Your task to perform on an android device: stop showing notifications on the lock screen Image 0: 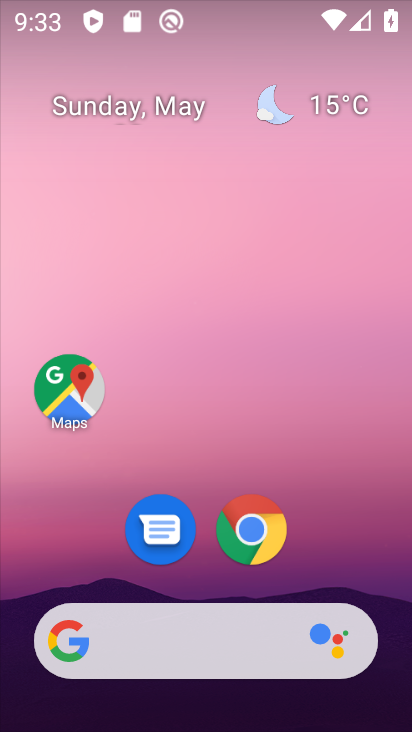
Step 0: drag from (273, 663) to (243, 5)
Your task to perform on an android device: stop showing notifications on the lock screen Image 1: 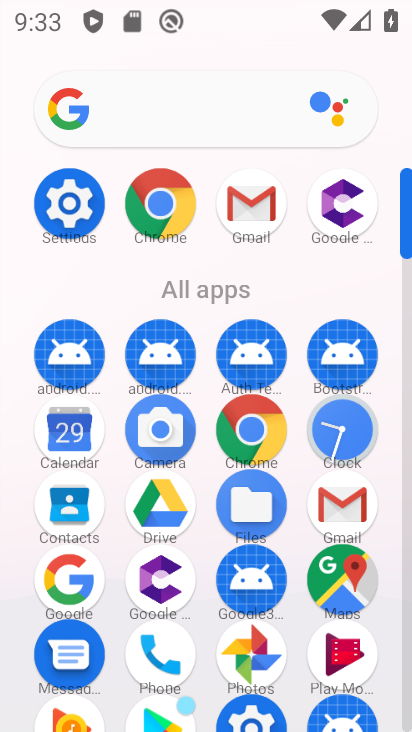
Step 1: click (81, 211)
Your task to perform on an android device: stop showing notifications on the lock screen Image 2: 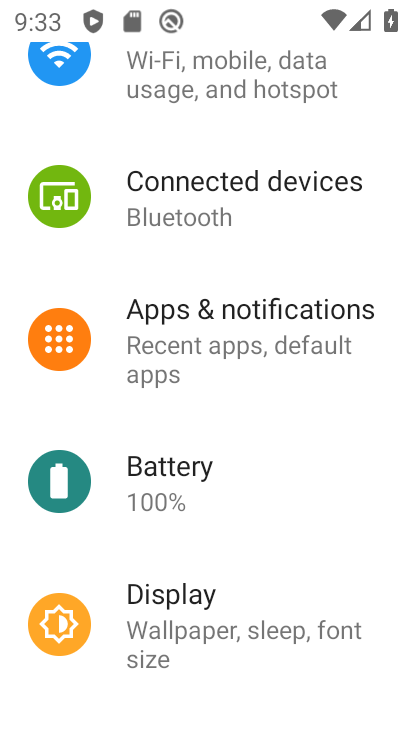
Step 2: click (212, 343)
Your task to perform on an android device: stop showing notifications on the lock screen Image 3: 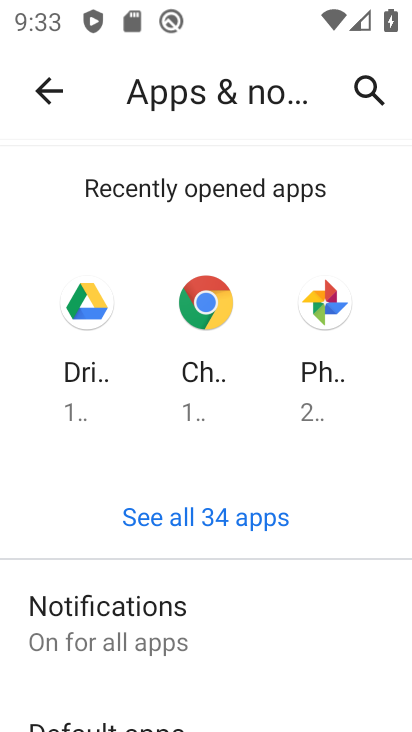
Step 3: drag from (252, 638) to (302, 146)
Your task to perform on an android device: stop showing notifications on the lock screen Image 4: 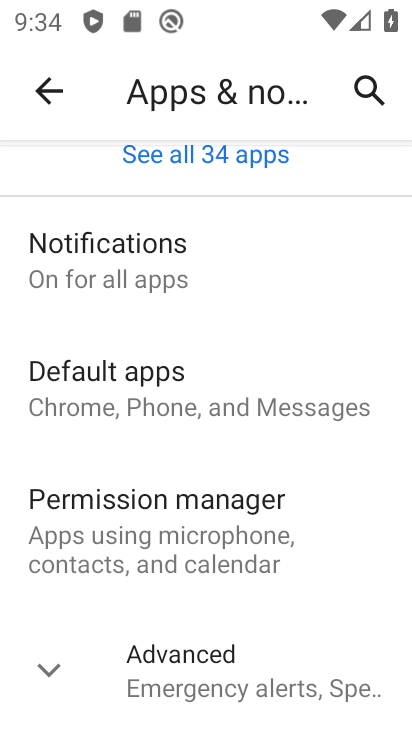
Step 4: click (206, 247)
Your task to perform on an android device: stop showing notifications on the lock screen Image 5: 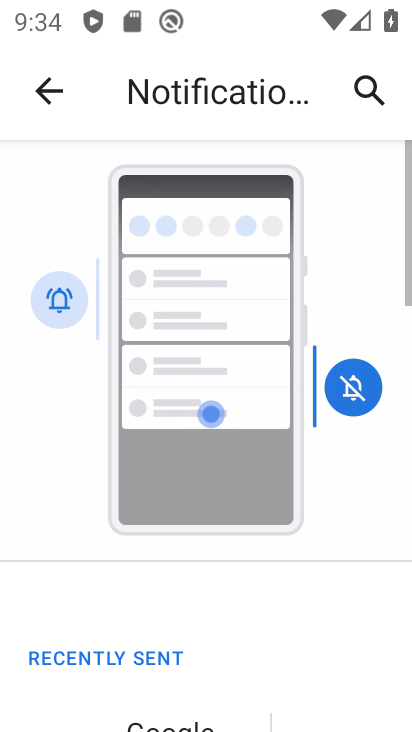
Step 5: drag from (230, 674) to (198, 40)
Your task to perform on an android device: stop showing notifications on the lock screen Image 6: 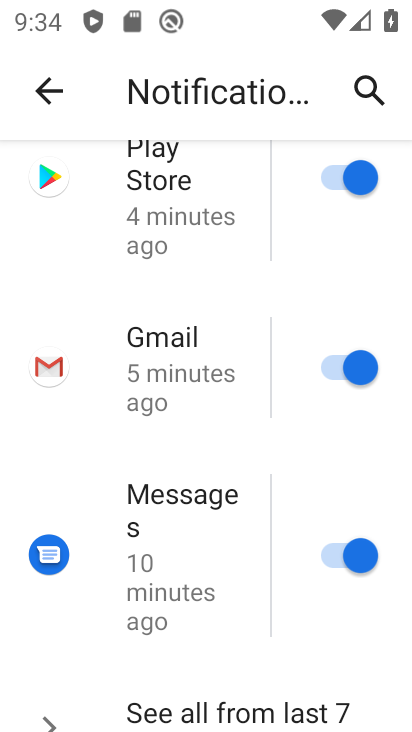
Step 6: drag from (240, 632) to (217, 75)
Your task to perform on an android device: stop showing notifications on the lock screen Image 7: 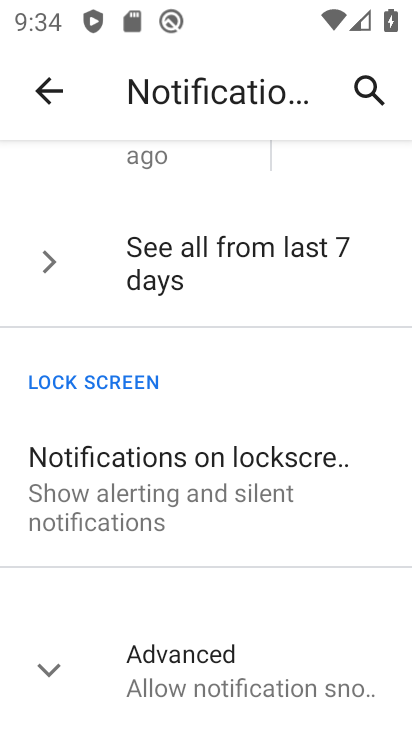
Step 7: click (243, 491)
Your task to perform on an android device: stop showing notifications on the lock screen Image 8: 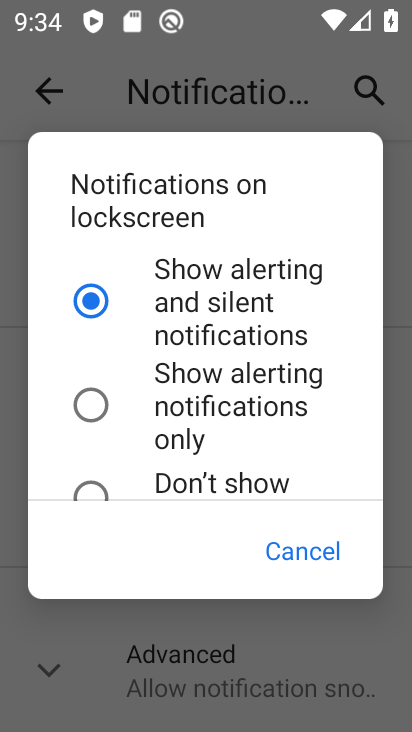
Step 8: click (94, 484)
Your task to perform on an android device: stop showing notifications on the lock screen Image 9: 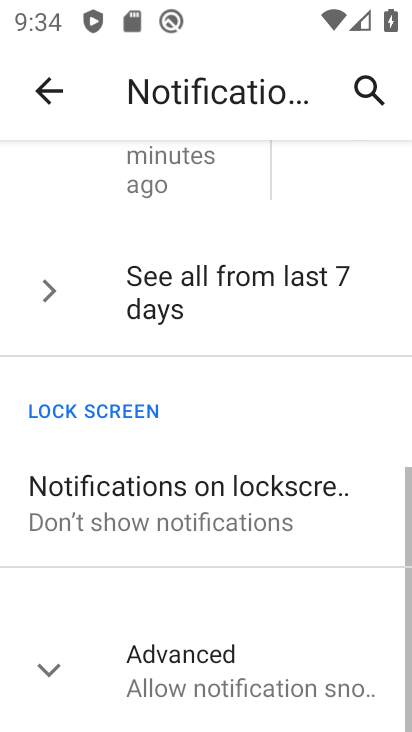
Step 9: task complete